Your task to perform on an android device: What's the weather today? Image 0: 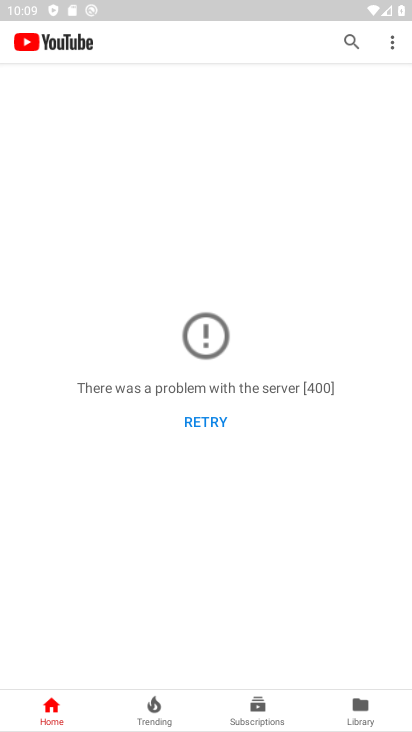
Step 0: press home button
Your task to perform on an android device: What's the weather today? Image 1: 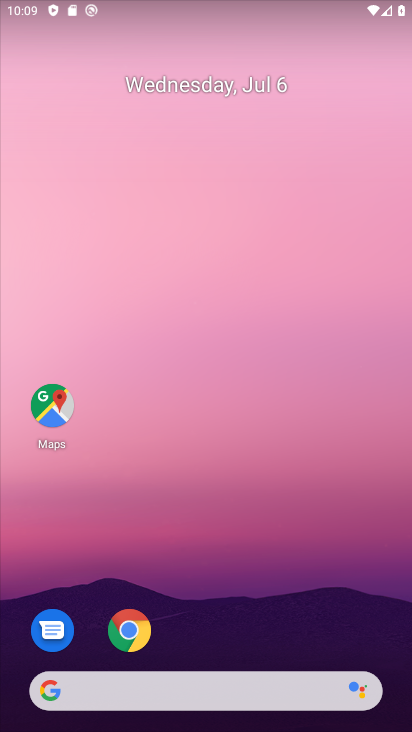
Step 1: drag from (231, 633) to (239, 97)
Your task to perform on an android device: What's the weather today? Image 2: 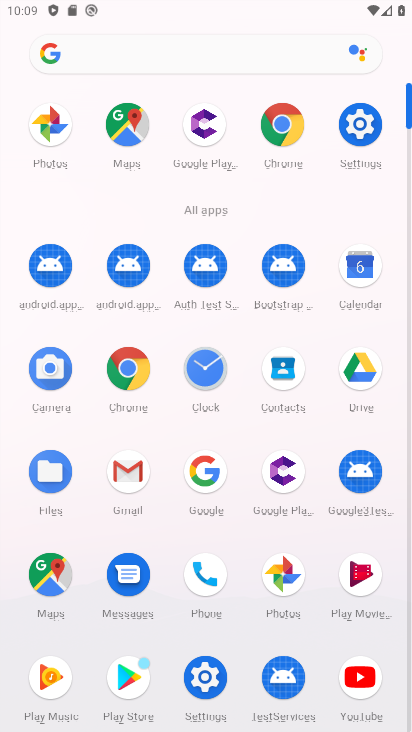
Step 2: click (209, 472)
Your task to perform on an android device: What's the weather today? Image 3: 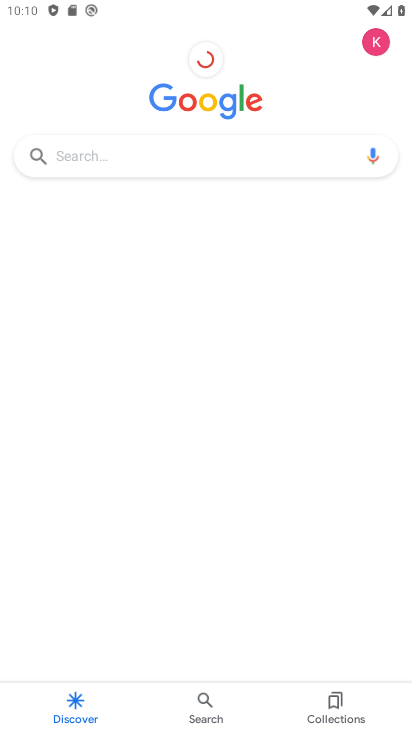
Step 3: click (148, 156)
Your task to perform on an android device: What's the weather today? Image 4: 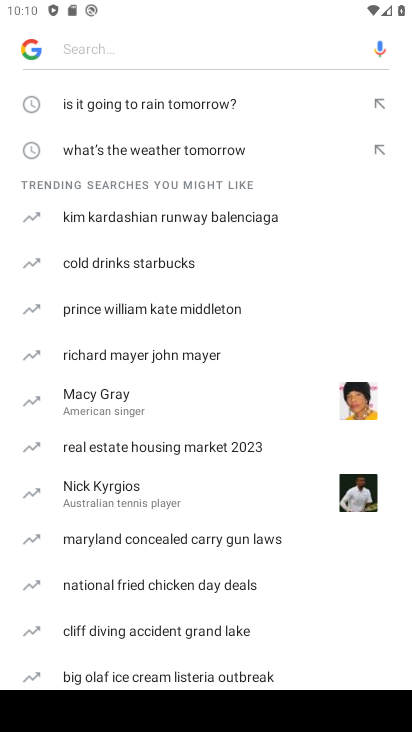
Step 4: type "weather"
Your task to perform on an android device: What's the weather today? Image 5: 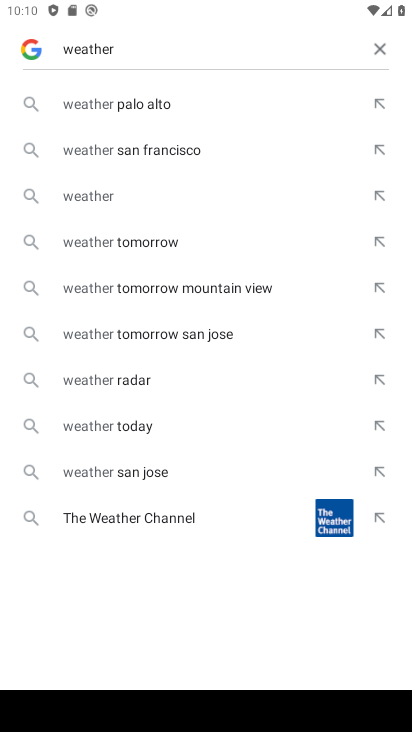
Step 5: click (127, 200)
Your task to perform on an android device: What's the weather today? Image 6: 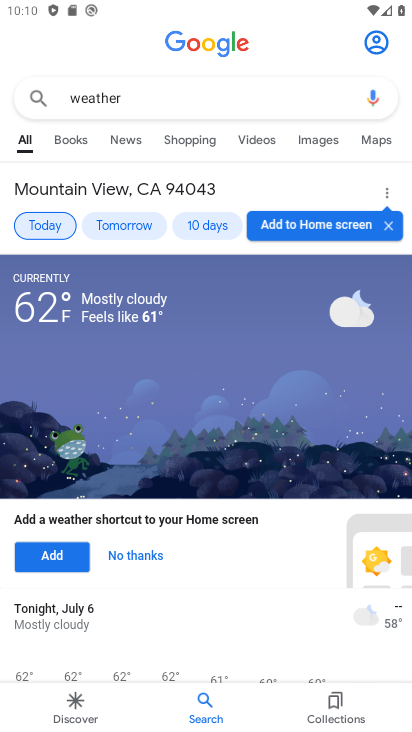
Step 6: task complete